Your task to perform on an android device: Go to internet settings Image 0: 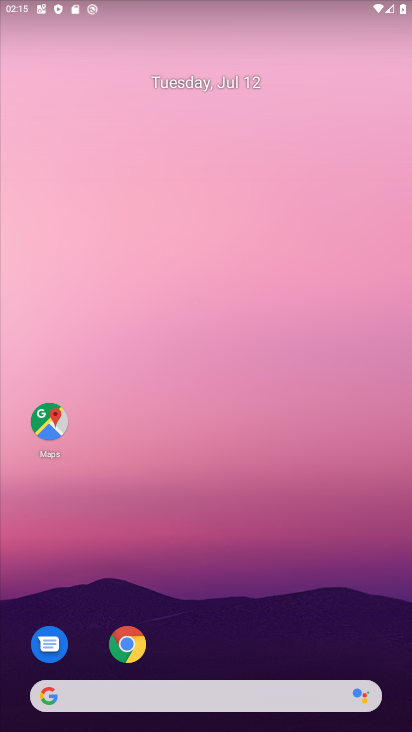
Step 0: drag from (215, 656) to (163, 99)
Your task to perform on an android device: Go to internet settings Image 1: 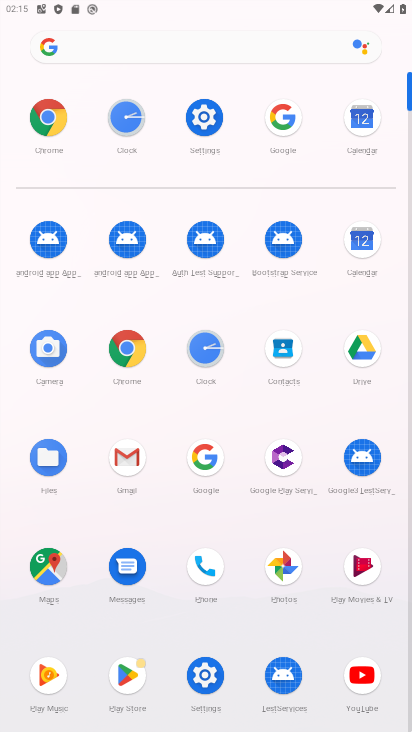
Step 1: click (197, 683)
Your task to perform on an android device: Go to internet settings Image 2: 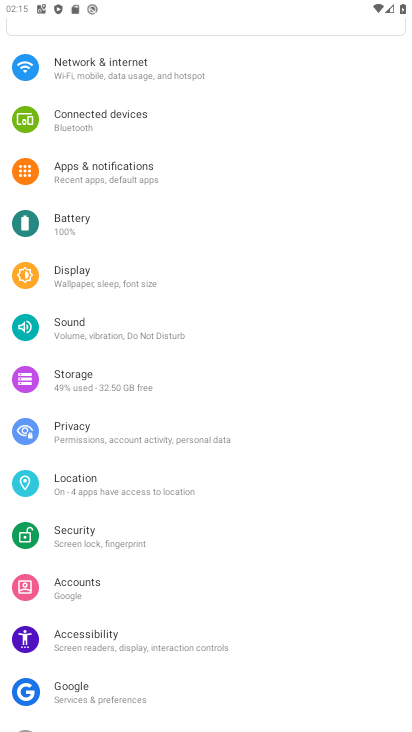
Step 2: click (90, 77)
Your task to perform on an android device: Go to internet settings Image 3: 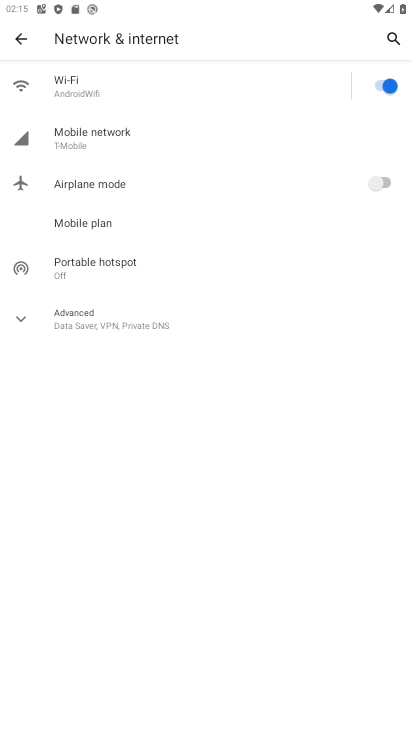
Step 3: click (89, 140)
Your task to perform on an android device: Go to internet settings Image 4: 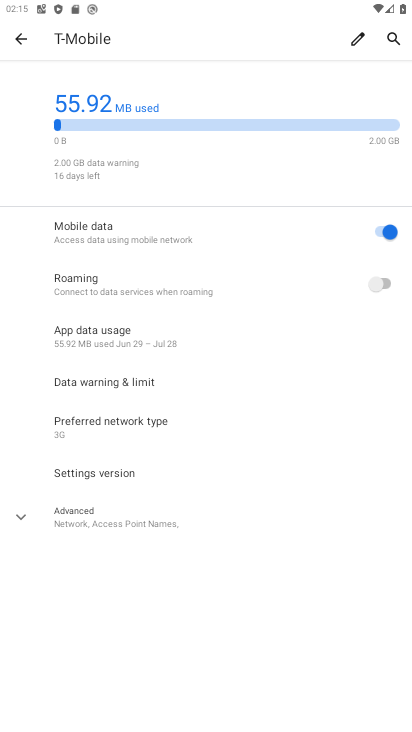
Step 4: press home button
Your task to perform on an android device: Go to internet settings Image 5: 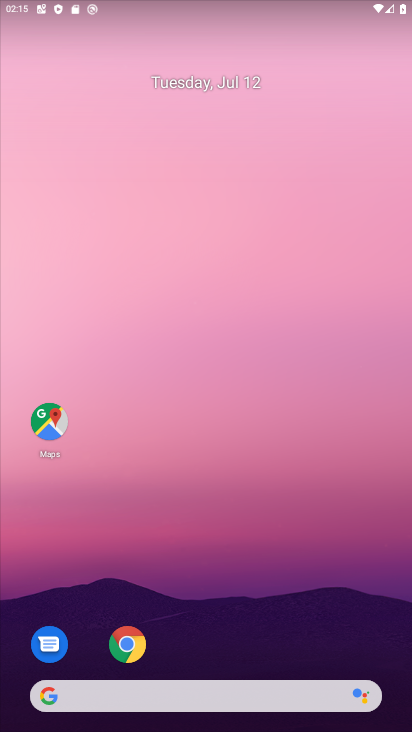
Step 5: drag from (205, 668) to (368, 25)
Your task to perform on an android device: Go to internet settings Image 6: 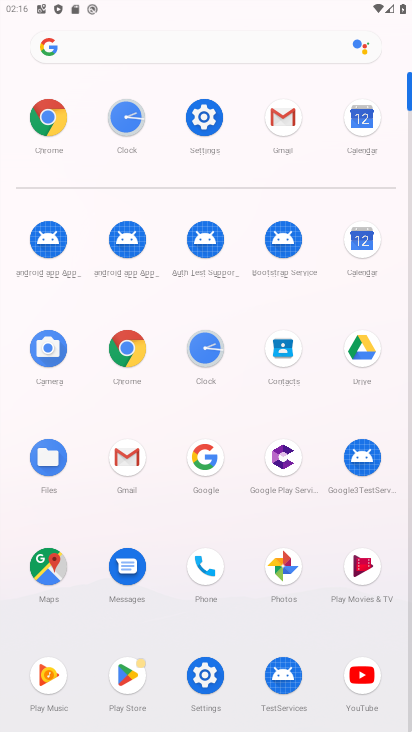
Step 6: click (201, 675)
Your task to perform on an android device: Go to internet settings Image 7: 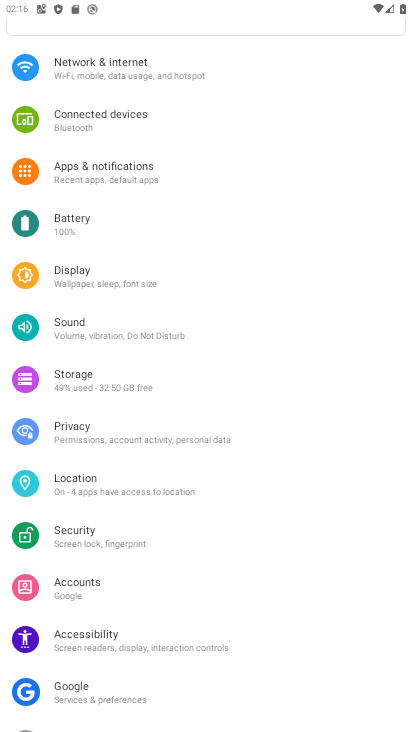
Step 7: click (121, 85)
Your task to perform on an android device: Go to internet settings Image 8: 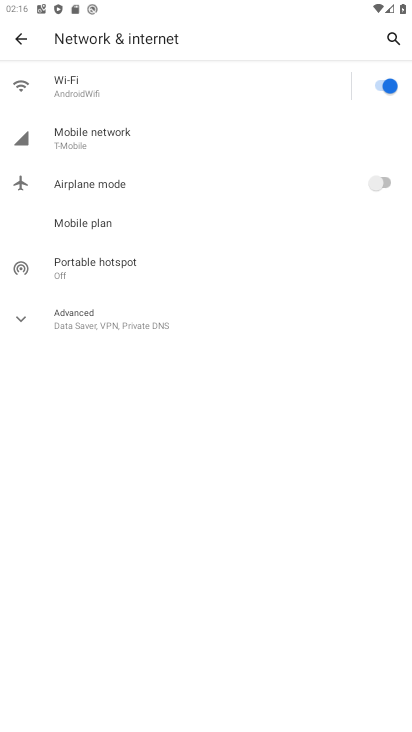
Step 8: click (85, 134)
Your task to perform on an android device: Go to internet settings Image 9: 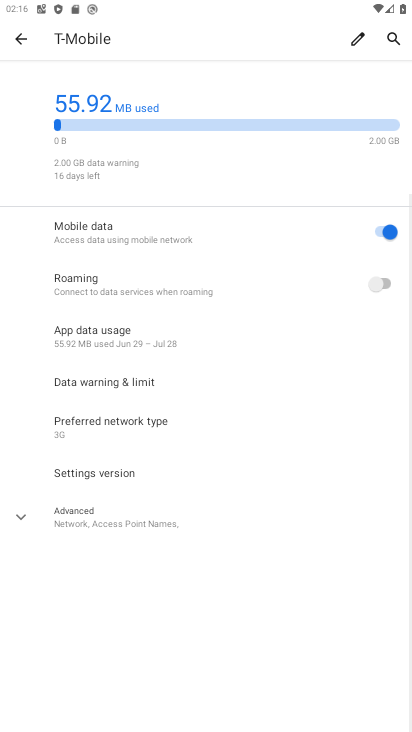
Step 9: task complete